Your task to perform on an android device: Open maps Image 0: 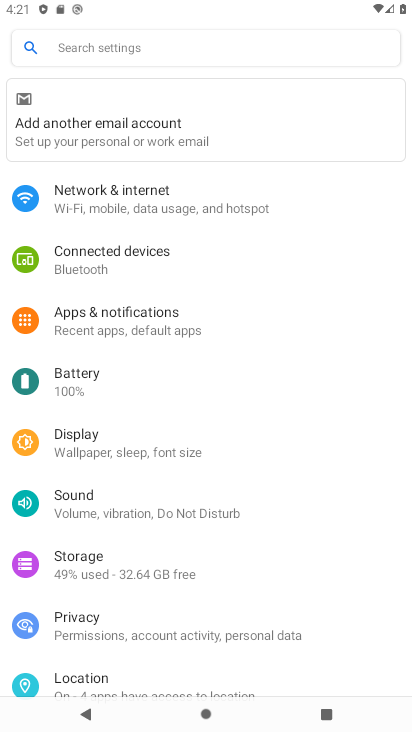
Step 0: press home button
Your task to perform on an android device: Open maps Image 1: 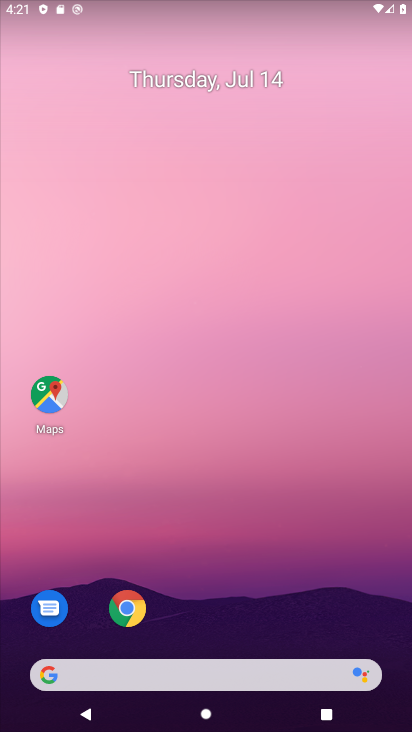
Step 1: click (46, 398)
Your task to perform on an android device: Open maps Image 2: 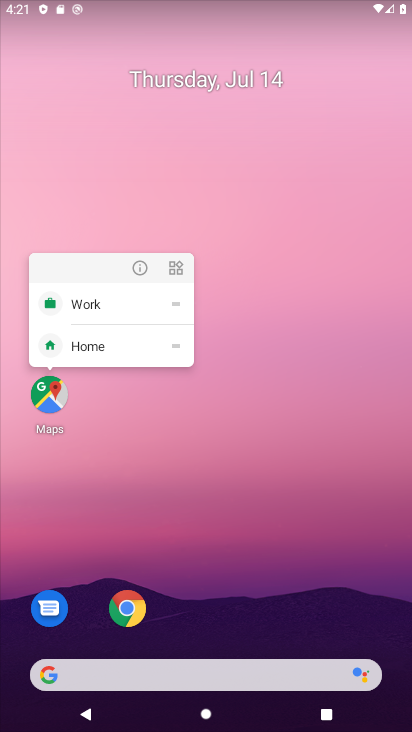
Step 2: click (46, 398)
Your task to perform on an android device: Open maps Image 3: 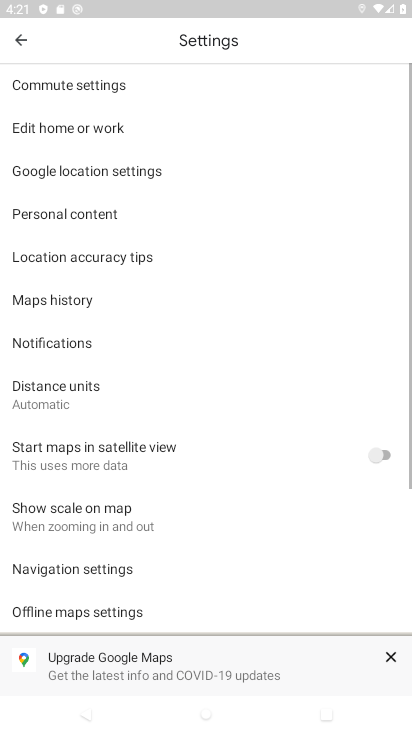
Step 3: click (13, 45)
Your task to perform on an android device: Open maps Image 4: 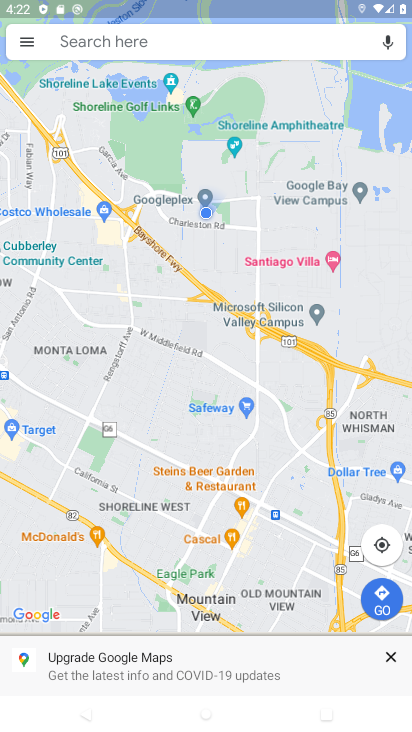
Step 4: task complete